Your task to perform on an android device: Open accessibility settings Image 0: 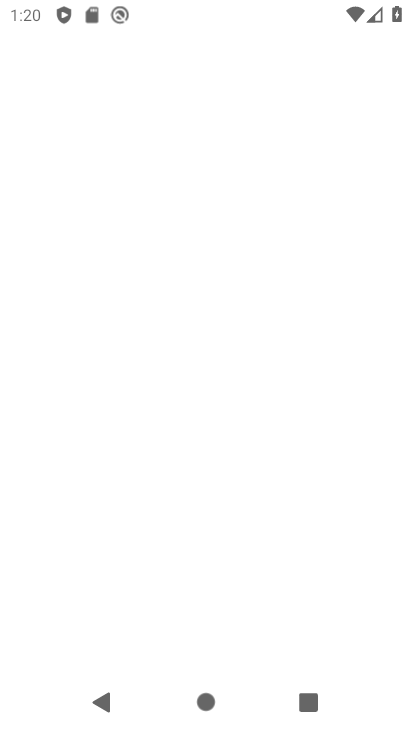
Step 0: press home button
Your task to perform on an android device: Open accessibility settings Image 1: 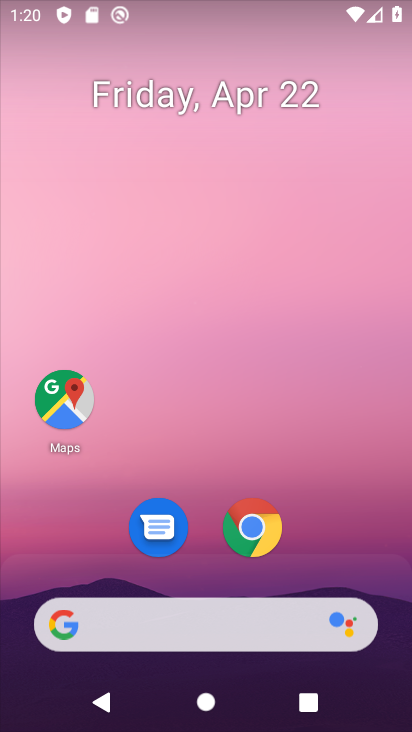
Step 1: drag from (274, 162) to (267, 31)
Your task to perform on an android device: Open accessibility settings Image 2: 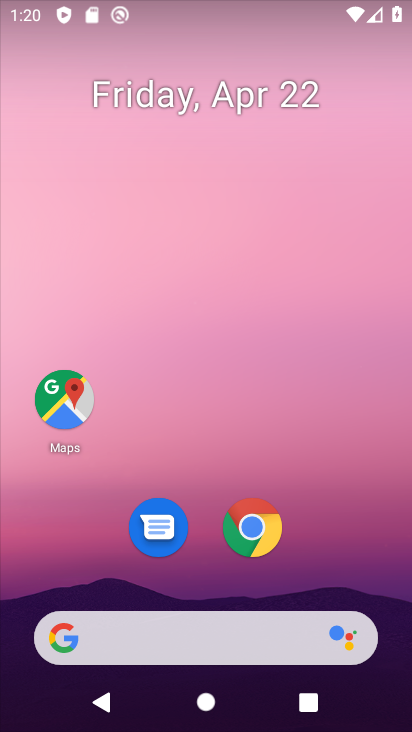
Step 2: drag from (337, 415) to (331, 0)
Your task to perform on an android device: Open accessibility settings Image 3: 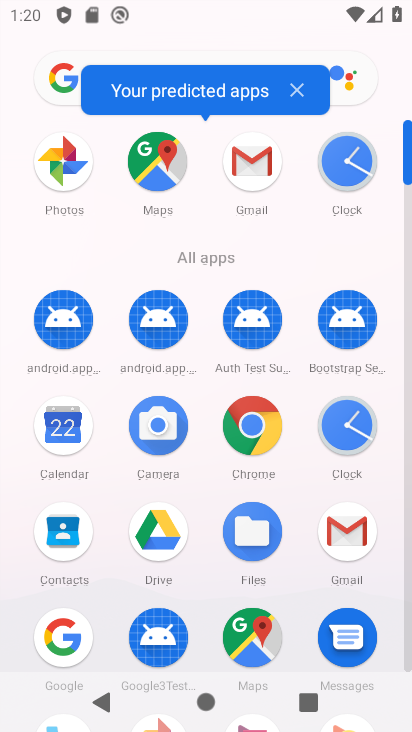
Step 3: drag from (385, 573) to (405, 251)
Your task to perform on an android device: Open accessibility settings Image 4: 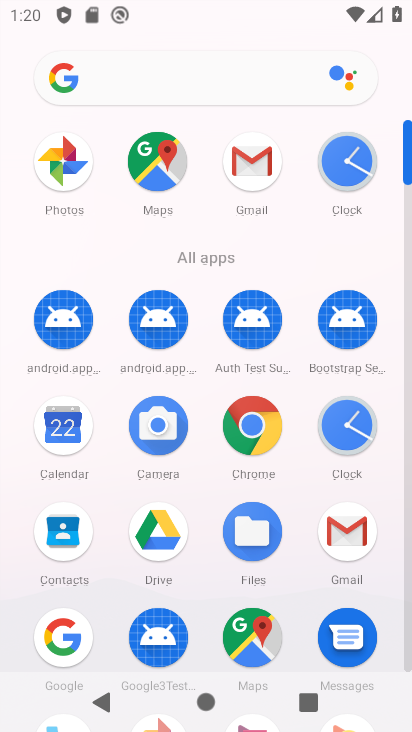
Step 4: drag from (375, 568) to (402, 127)
Your task to perform on an android device: Open accessibility settings Image 5: 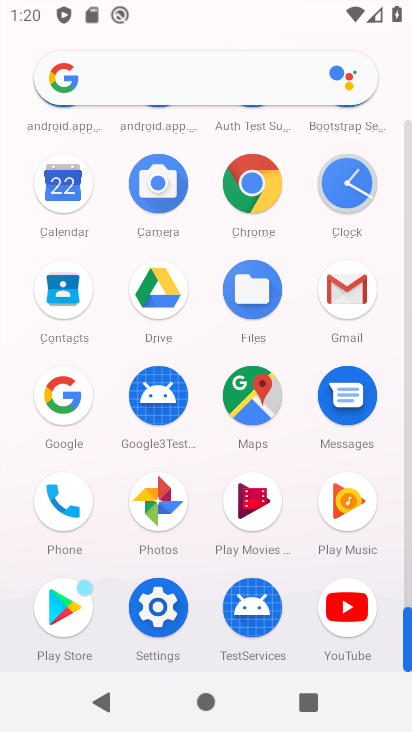
Step 5: click (158, 614)
Your task to perform on an android device: Open accessibility settings Image 6: 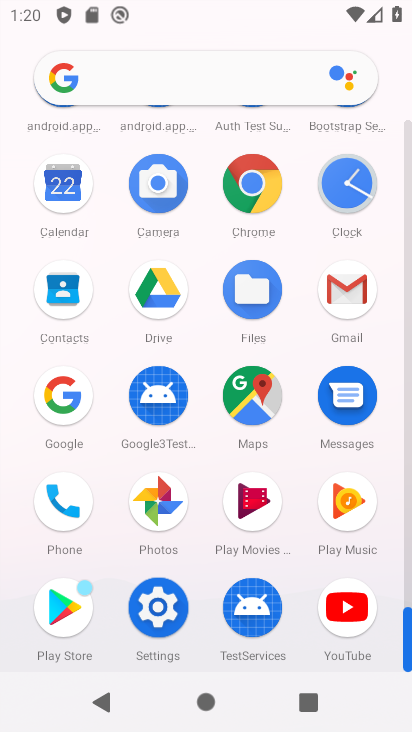
Step 6: click (159, 609)
Your task to perform on an android device: Open accessibility settings Image 7: 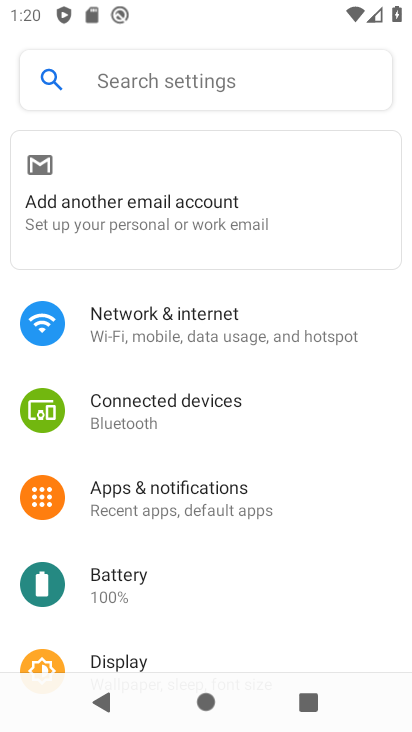
Step 7: drag from (226, 494) to (289, 184)
Your task to perform on an android device: Open accessibility settings Image 8: 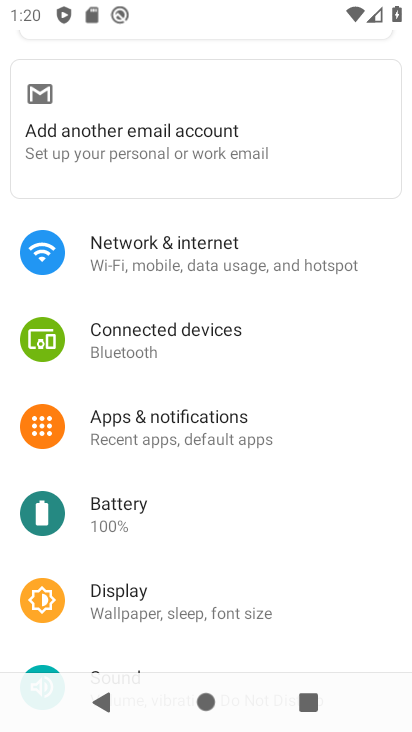
Step 8: drag from (252, 595) to (299, 184)
Your task to perform on an android device: Open accessibility settings Image 9: 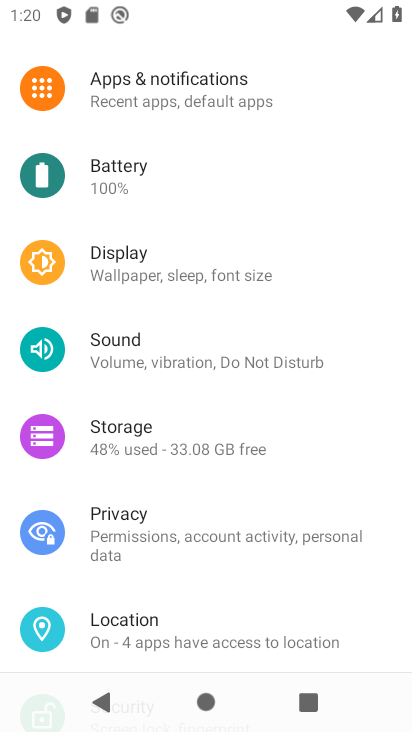
Step 9: drag from (271, 612) to (254, 128)
Your task to perform on an android device: Open accessibility settings Image 10: 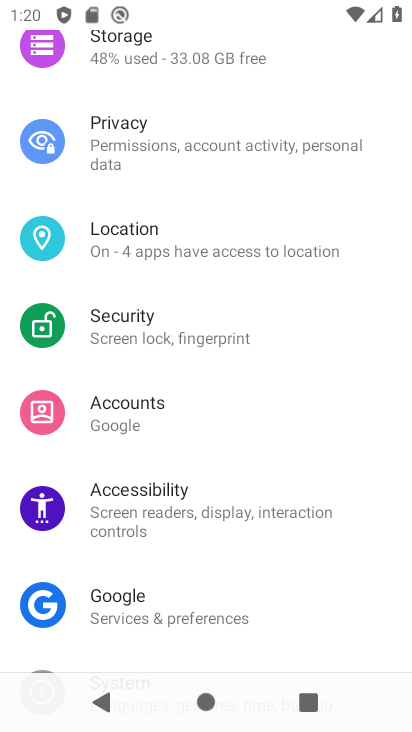
Step 10: drag from (169, 554) to (182, 287)
Your task to perform on an android device: Open accessibility settings Image 11: 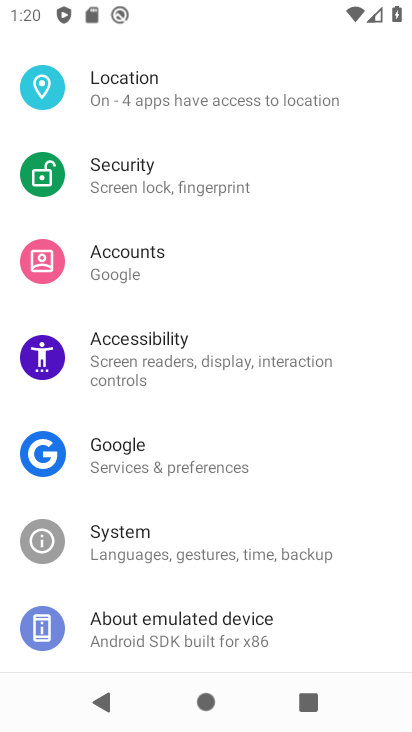
Step 11: click (132, 360)
Your task to perform on an android device: Open accessibility settings Image 12: 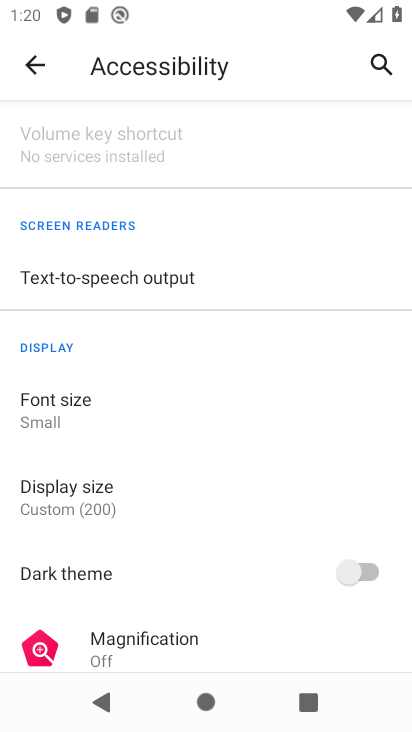
Step 12: task complete